Your task to perform on an android device: manage bookmarks in the chrome app Image 0: 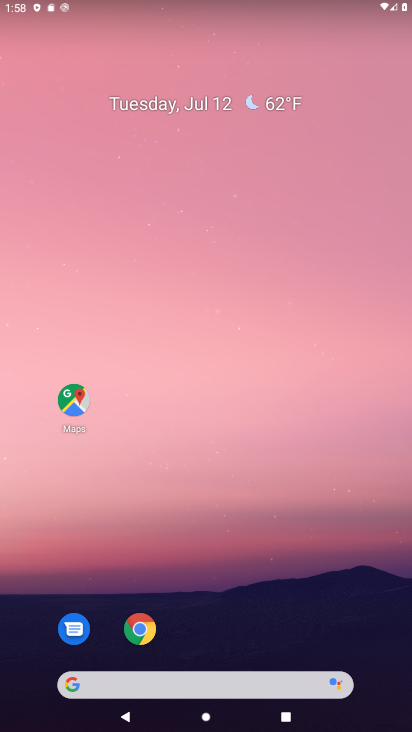
Step 0: press home button
Your task to perform on an android device: manage bookmarks in the chrome app Image 1: 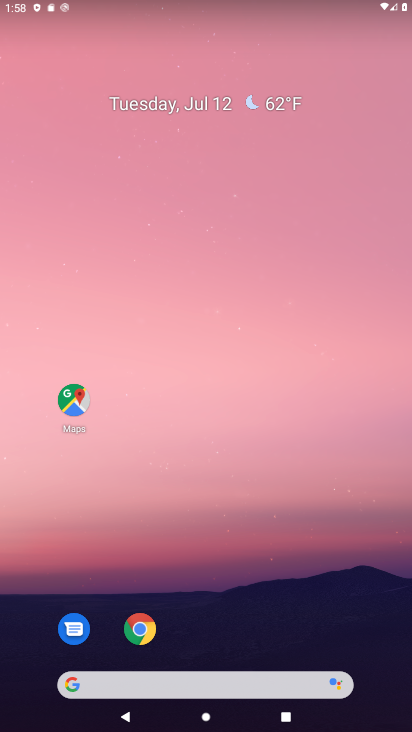
Step 1: click (139, 622)
Your task to perform on an android device: manage bookmarks in the chrome app Image 2: 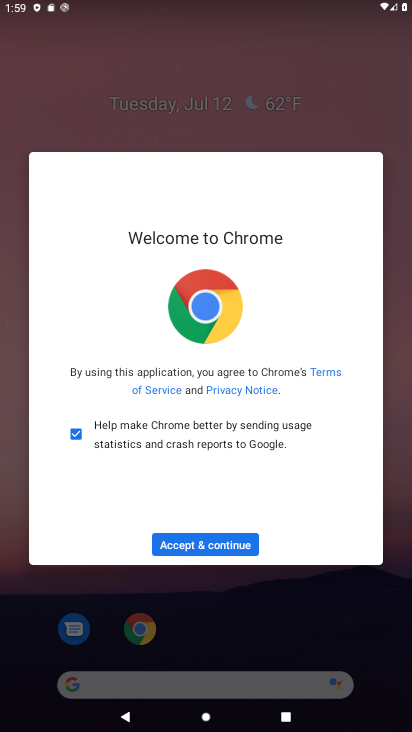
Step 2: click (204, 547)
Your task to perform on an android device: manage bookmarks in the chrome app Image 3: 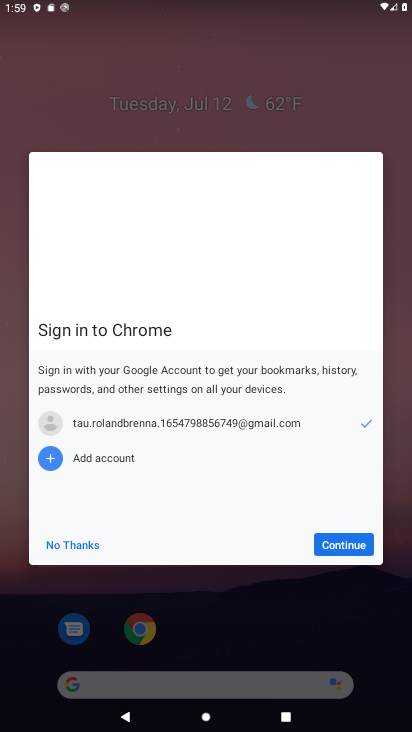
Step 3: click (337, 544)
Your task to perform on an android device: manage bookmarks in the chrome app Image 4: 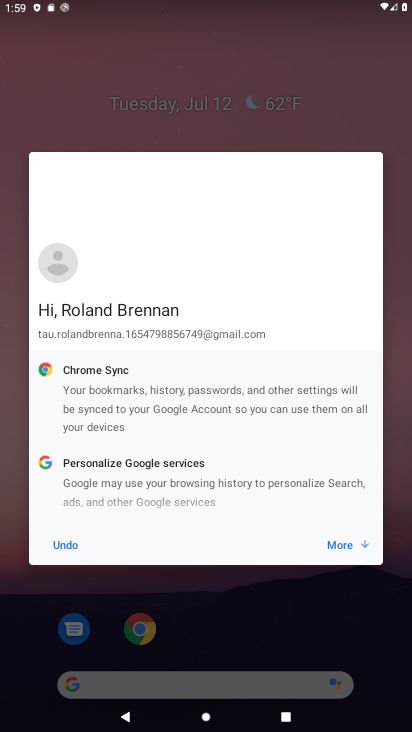
Step 4: click (349, 542)
Your task to perform on an android device: manage bookmarks in the chrome app Image 5: 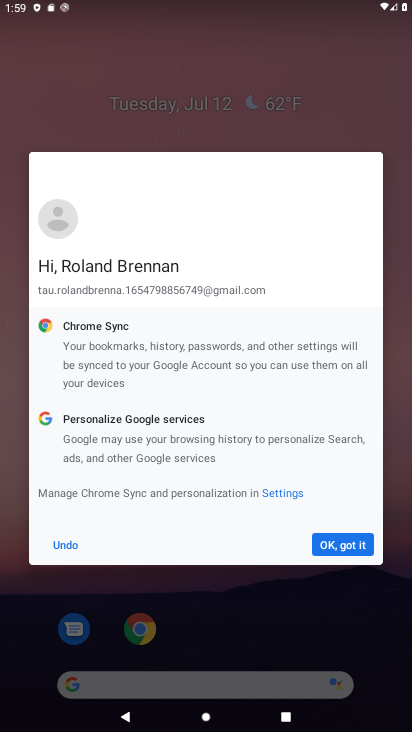
Step 5: click (344, 542)
Your task to perform on an android device: manage bookmarks in the chrome app Image 6: 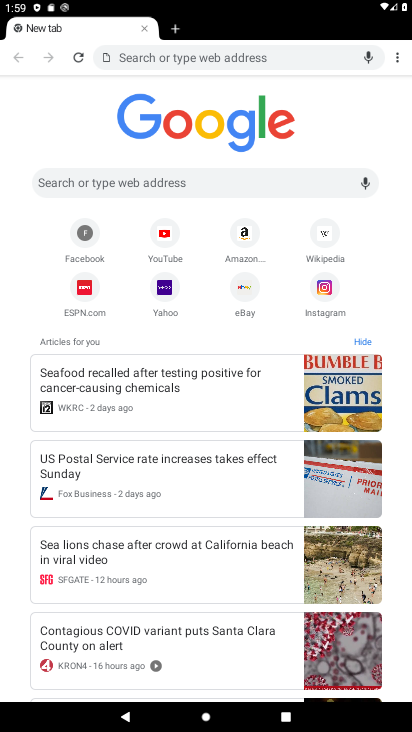
Step 6: click (399, 59)
Your task to perform on an android device: manage bookmarks in the chrome app Image 7: 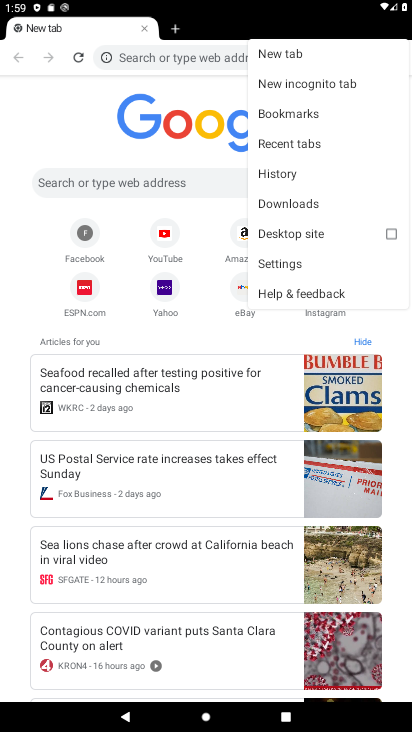
Step 7: click (307, 113)
Your task to perform on an android device: manage bookmarks in the chrome app Image 8: 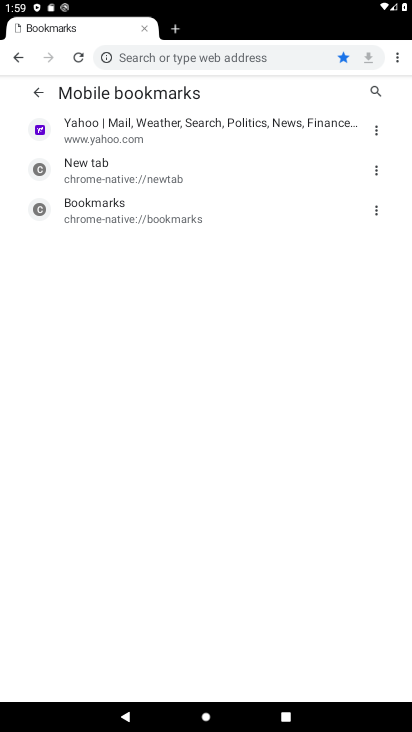
Step 8: task complete